Your task to perform on an android device: toggle notification dots Image 0: 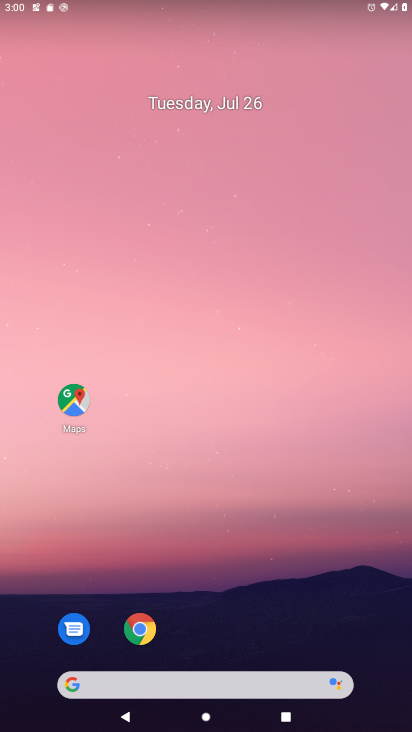
Step 0: drag from (210, 620) to (218, 180)
Your task to perform on an android device: toggle notification dots Image 1: 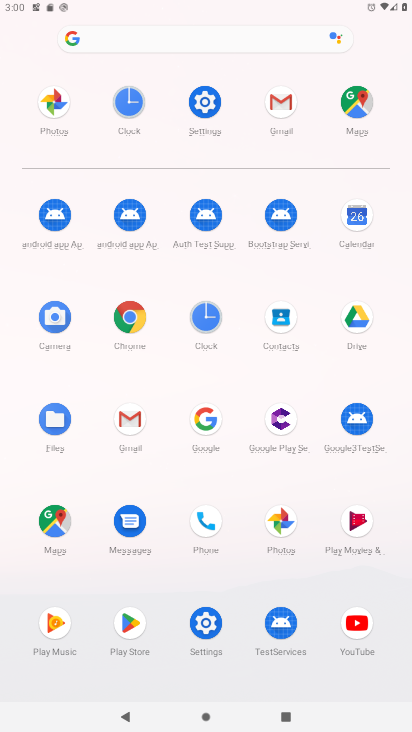
Step 1: click (212, 93)
Your task to perform on an android device: toggle notification dots Image 2: 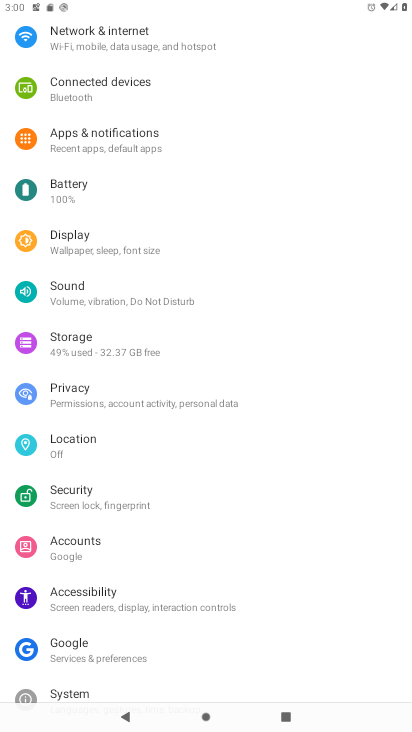
Step 2: click (200, 140)
Your task to perform on an android device: toggle notification dots Image 3: 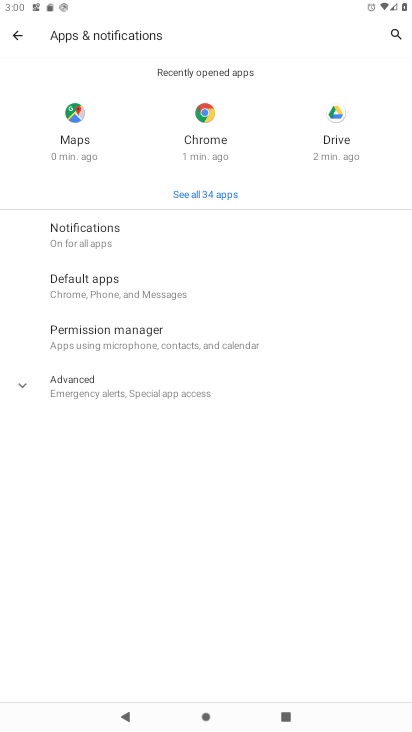
Step 3: click (120, 229)
Your task to perform on an android device: toggle notification dots Image 4: 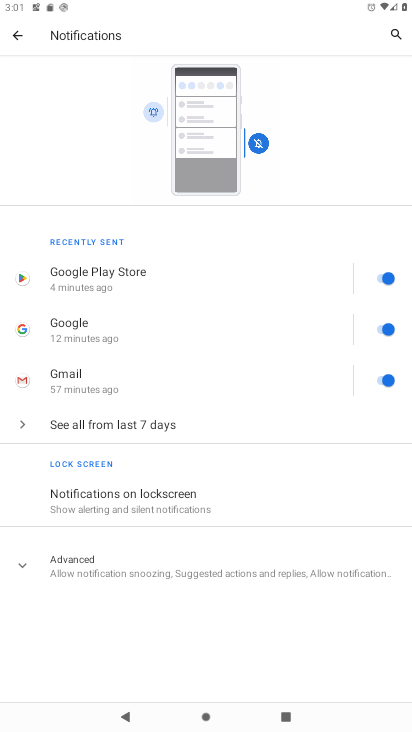
Step 4: click (121, 570)
Your task to perform on an android device: toggle notification dots Image 5: 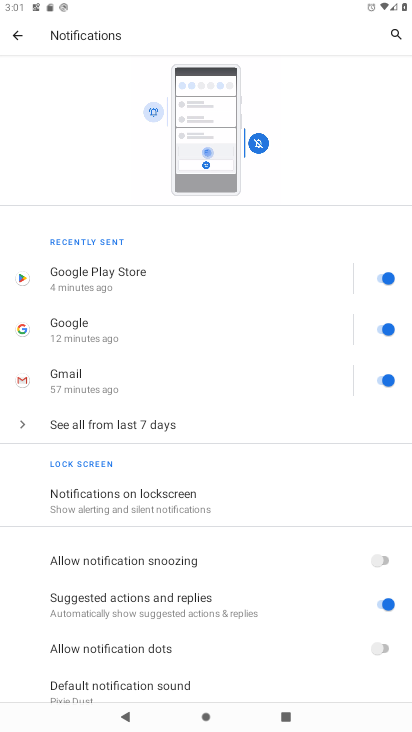
Step 5: click (388, 654)
Your task to perform on an android device: toggle notification dots Image 6: 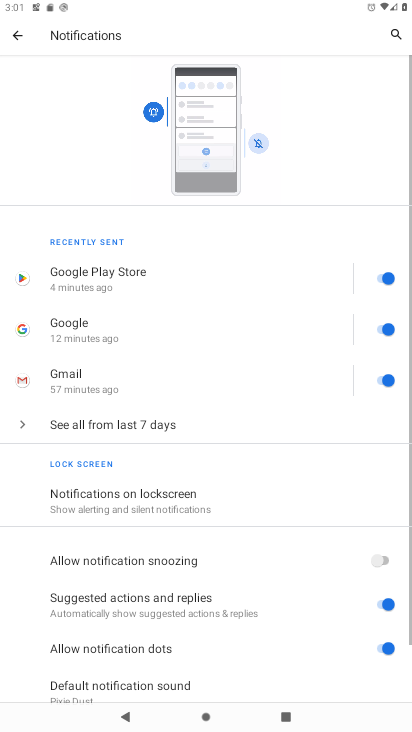
Step 6: task complete